Your task to perform on an android device: check data usage Image 0: 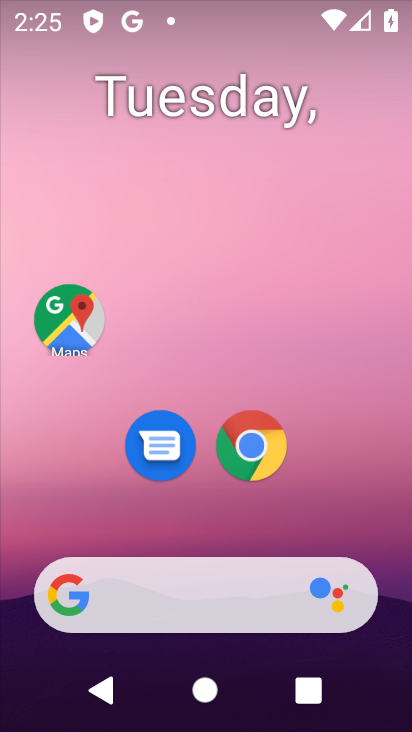
Step 0: drag from (262, 679) to (239, 221)
Your task to perform on an android device: check data usage Image 1: 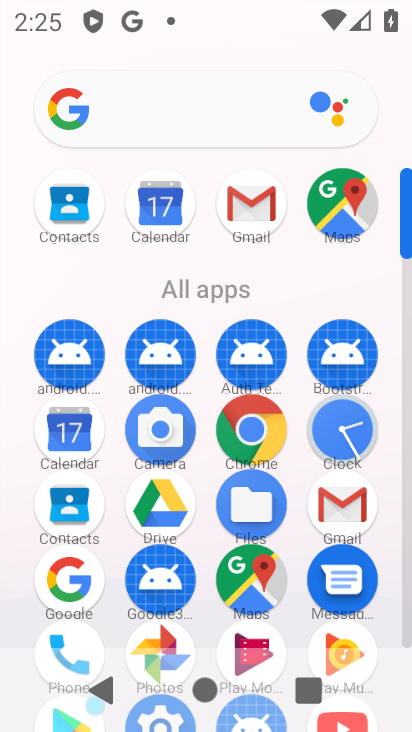
Step 1: drag from (258, 630) to (315, 179)
Your task to perform on an android device: check data usage Image 2: 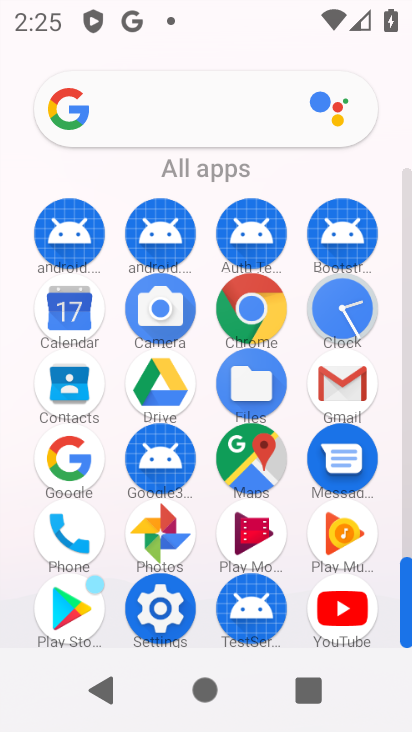
Step 2: click (163, 591)
Your task to perform on an android device: check data usage Image 3: 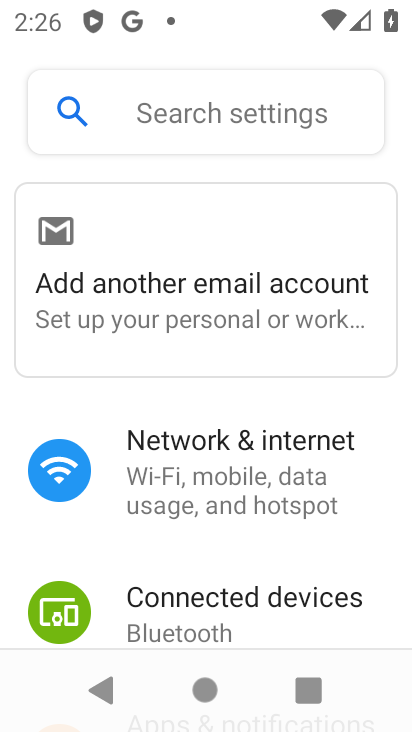
Step 3: click (248, 458)
Your task to perform on an android device: check data usage Image 4: 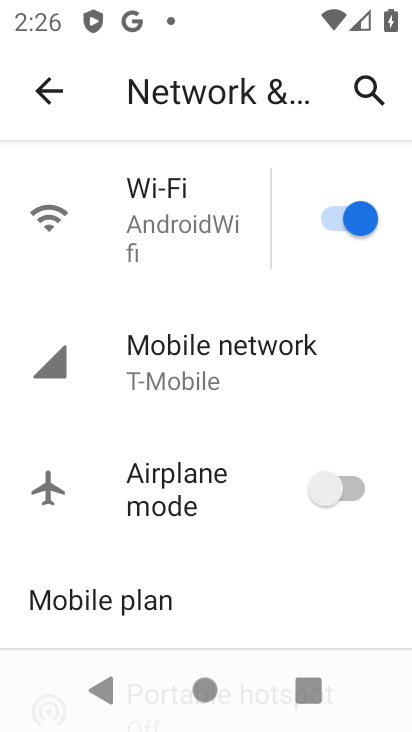
Step 4: click (210, 370)
Your task to perform on an android device: check data usage Image 5: 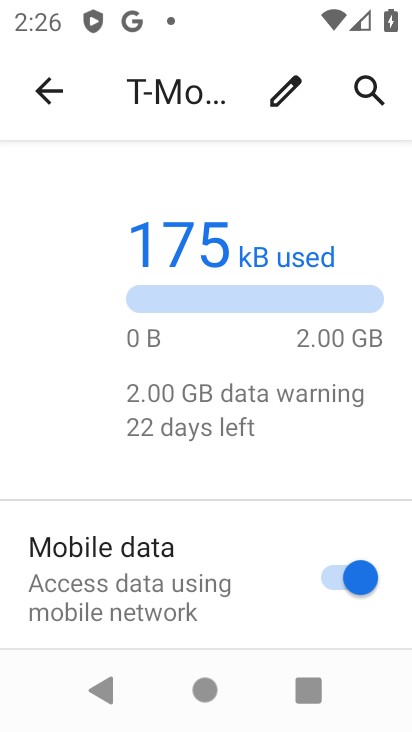
Step 5: task complete